Your task to perform on an android device: turn off picture-in-picture Image 0: 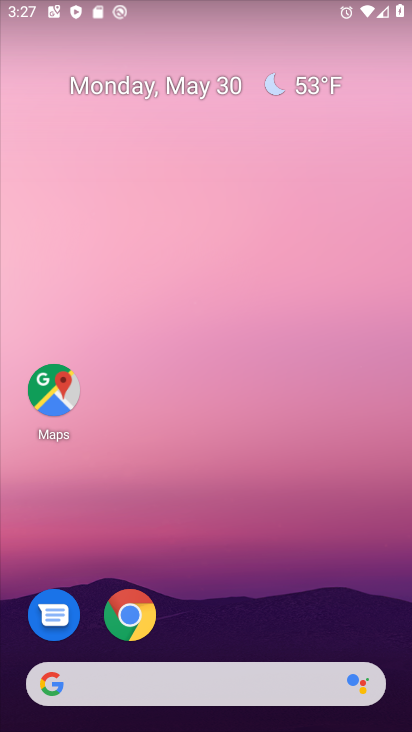
Step 0: click (134, 638)
Your task to perform on an android device: turn off picture-in-picture Image 1: 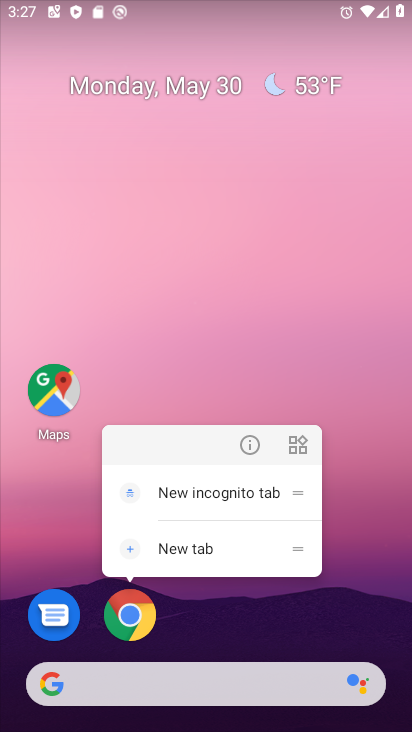
Step 1: click (246, 442)
Your task to perform on an android device: turn off picture-in-picture Image 2: 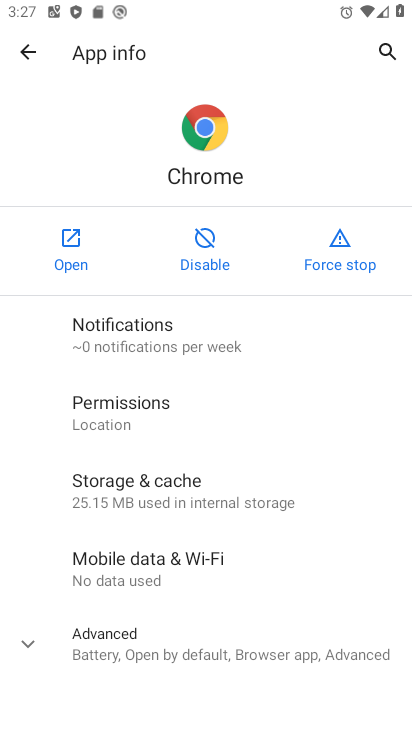
Step 2: drag from (229, 540) to (263, 324)
Your task to perform on an android device: turn off picture-in-picture Image 3: 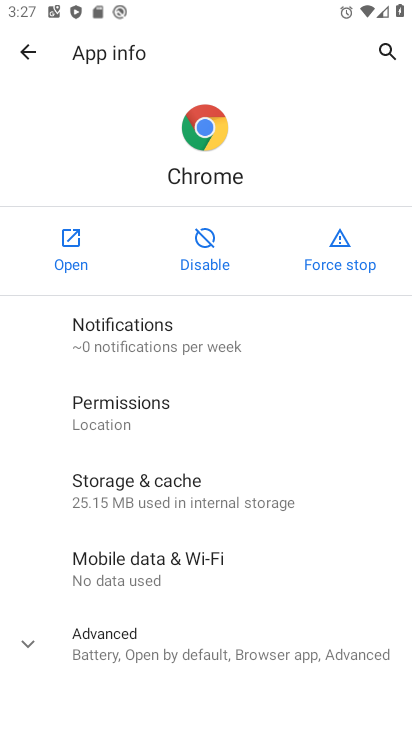
Step 3: click (229, 641)
Your task to perform on an android device: turn off picture-in-picture Image 4: 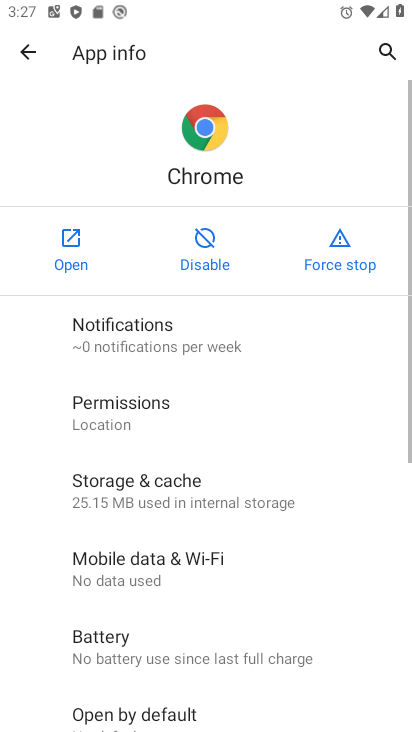
Step 4: drag from (229, 641) to (268, 395)
Your task to perform on an android device: turn off picture-in-picture Image 5: 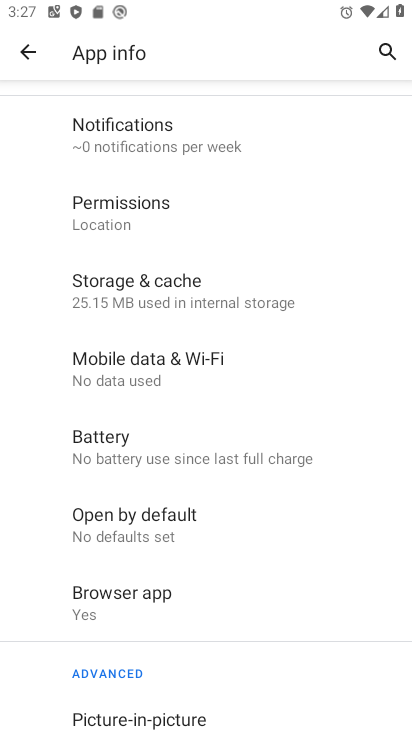
Step 5: click (198, 714)
Your task to perform on an android device: turn off picture-in-picture Image 6: 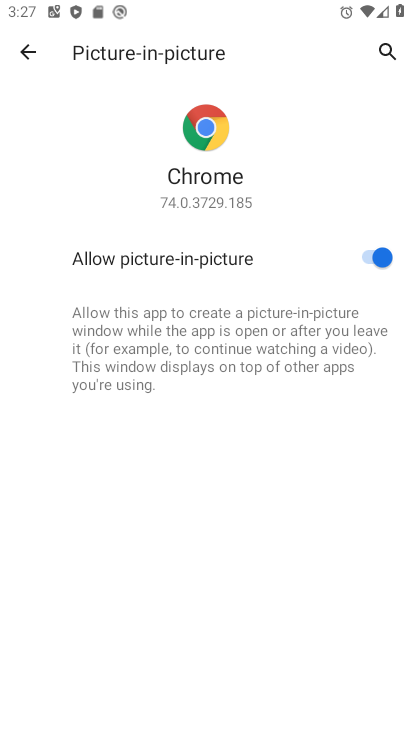
Step 6: click (380, 247)
Your task to perform on an android device: turn off picture-in-picture Image 7: 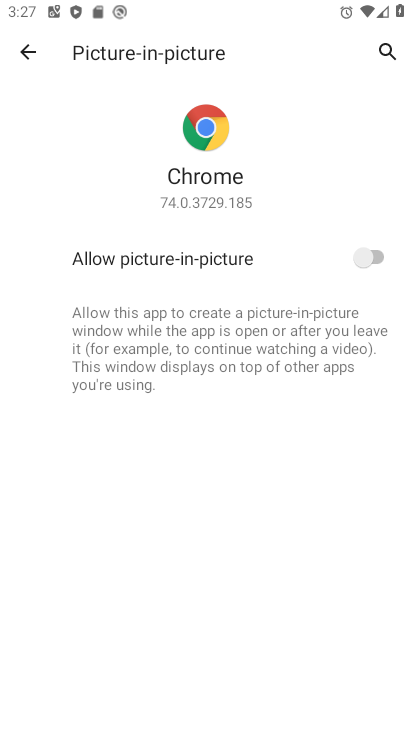
Step 7: task complete